Your task to perform on an android device: star an email in the gmail app Image 0: 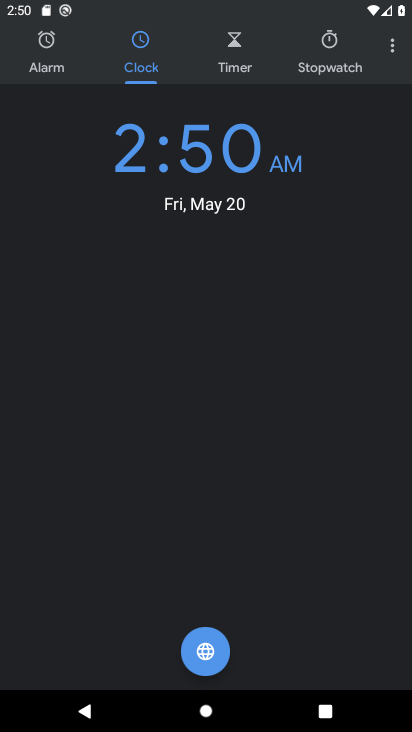
Step 0: press home button
Your task to perform on an android device: star an email in the gmail app Image 1: 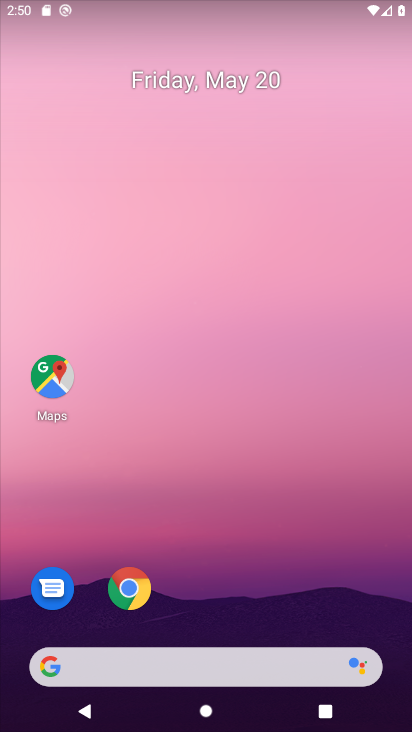
Step 1: drag from (256, 524) to (326, 75)
Your task to perform on an android device: star an email in the gmail app Image 2: 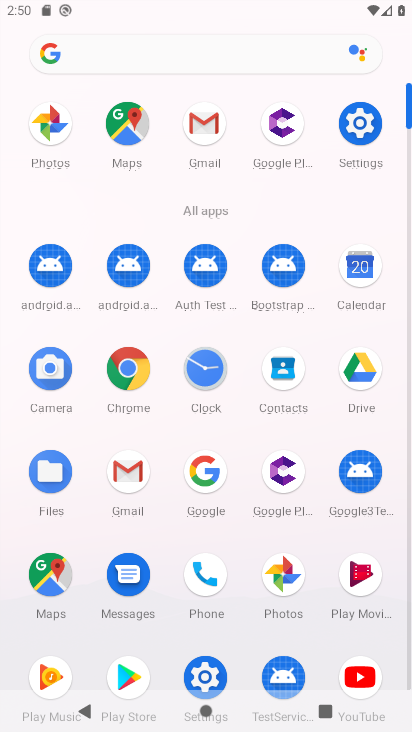
Step 2: click (203, 124)
Your task to perform on an android device: star an email in the gmail app Image 3: 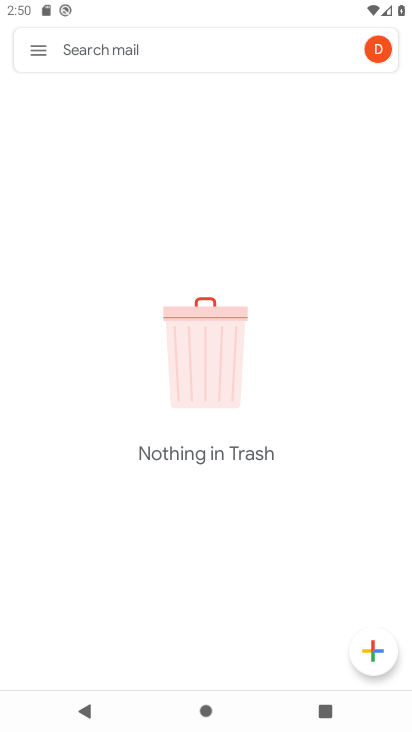
Step 3: click (36, 38)
Your task to perform on an android device: star an email in the gmail app Image 4: 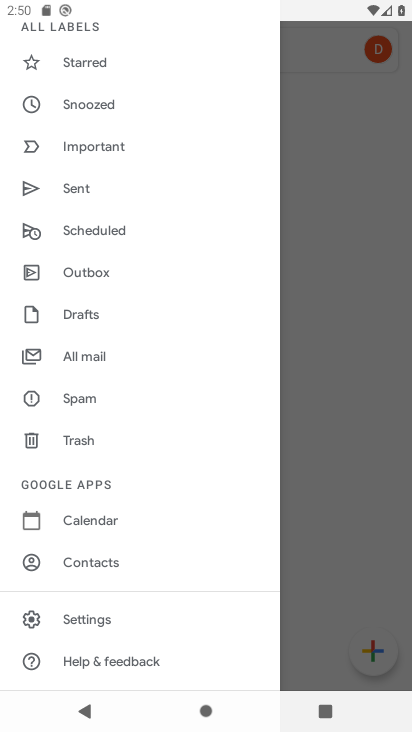
Step 4: click (79, 351)
Your task to perform on an android device: star an email in the gmail app Image 5: 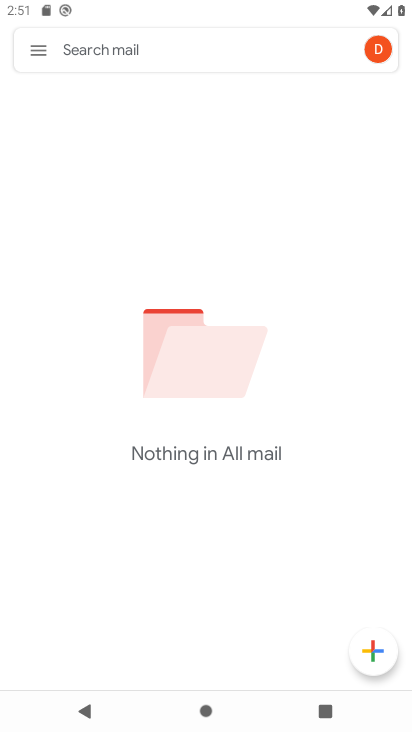
Step 5: task complete